Your task to perform on an android device: install app "LinkedIn" Image 0: 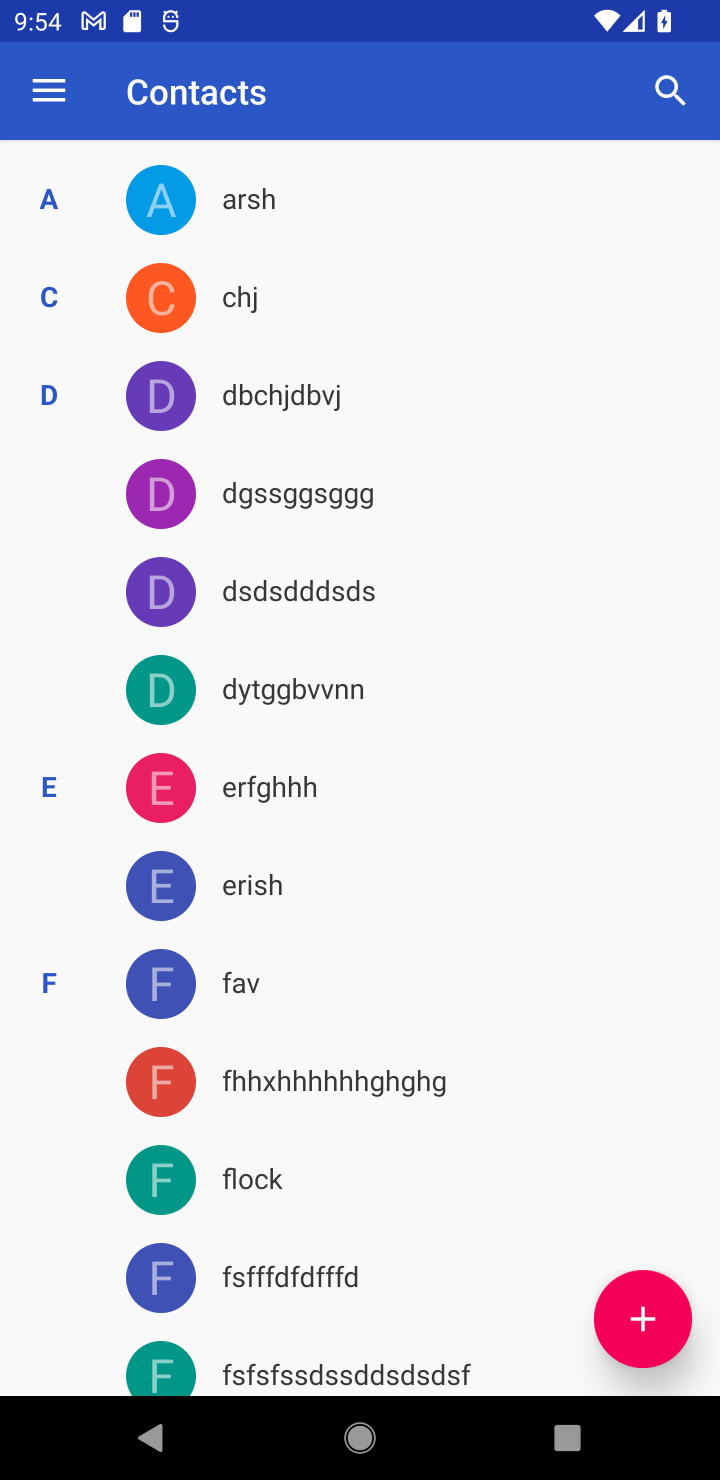
Step 0: press home button
Your task to perform on an android device: install app "LinkedIn" Image 1: 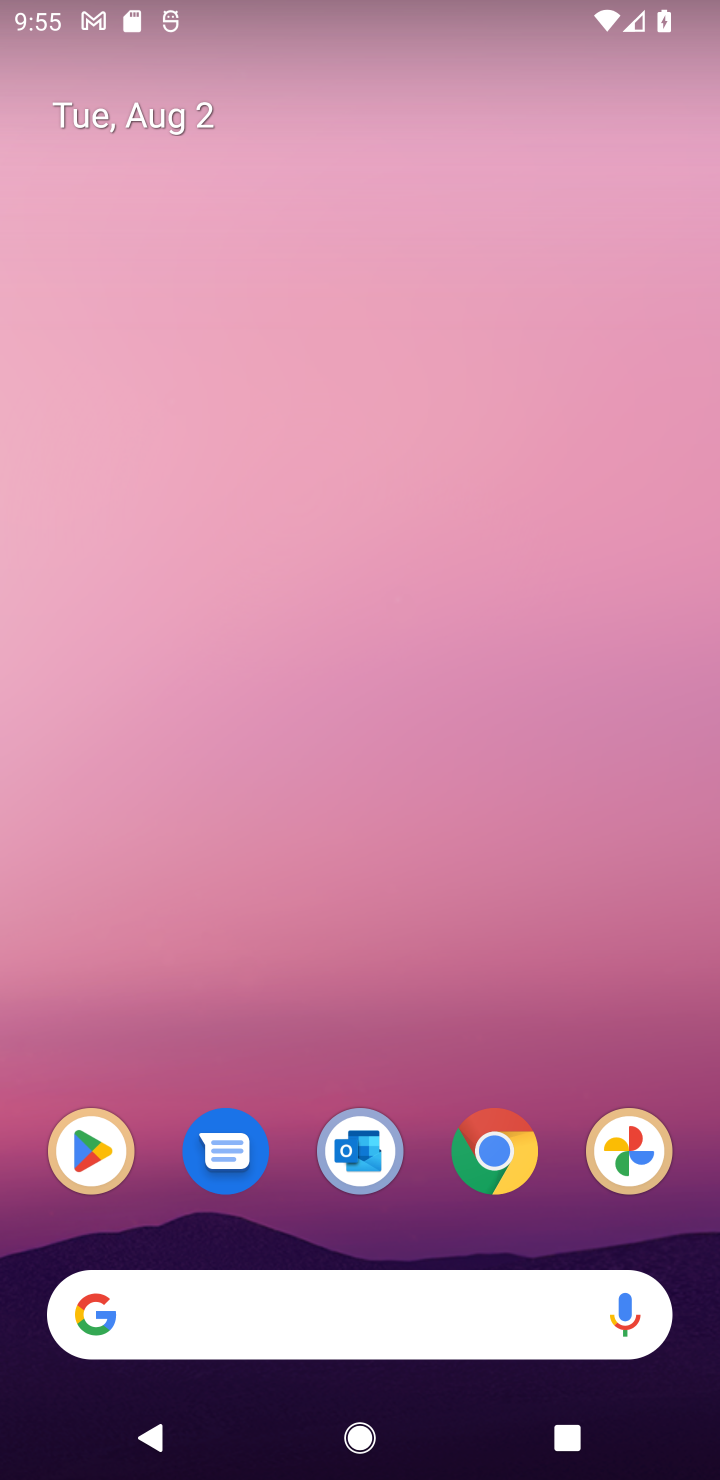
Step 1: drag from (366, 1220) to (353, 36)
Your task to perform on an android device: install app "LinkedIn" Image 2: 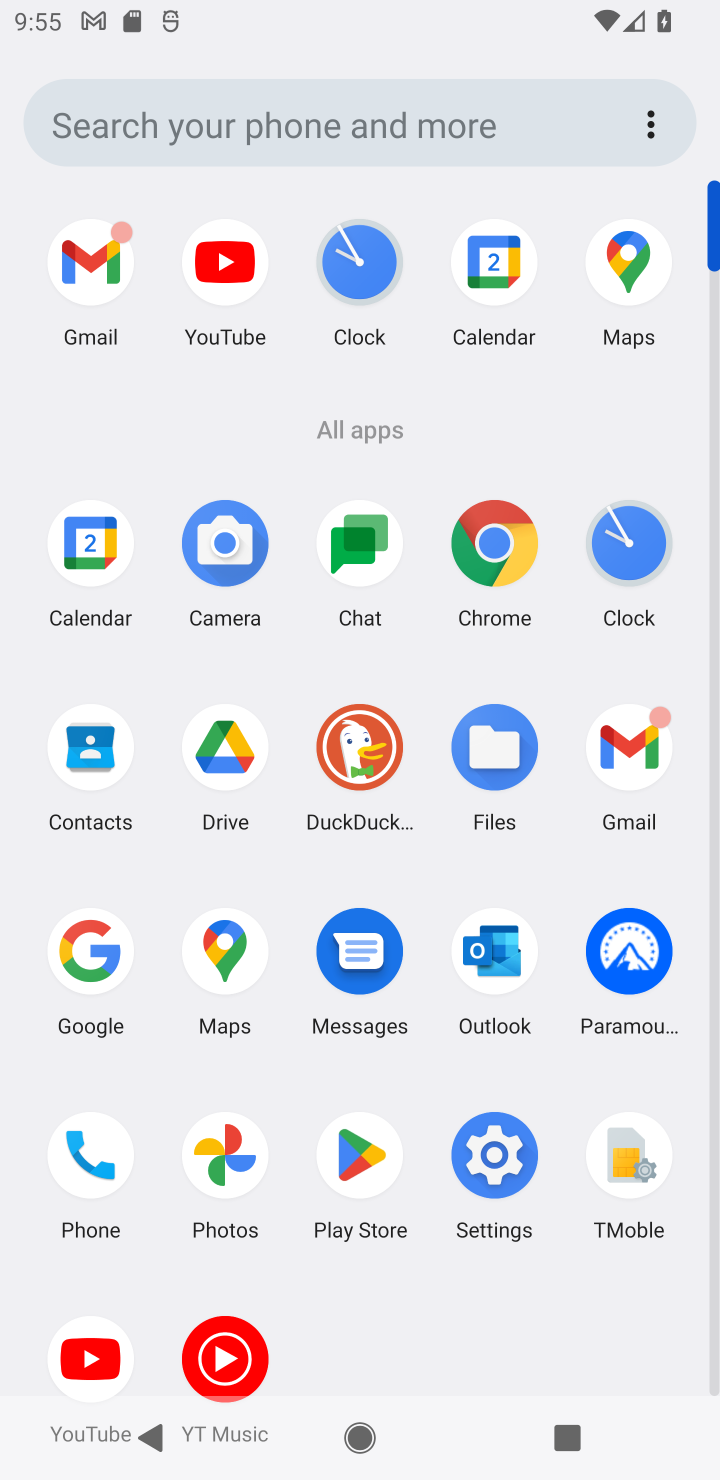
Step 2: click (357, 1166)
Your task to perform on an android device: install app "LinkedIn" Image 3: 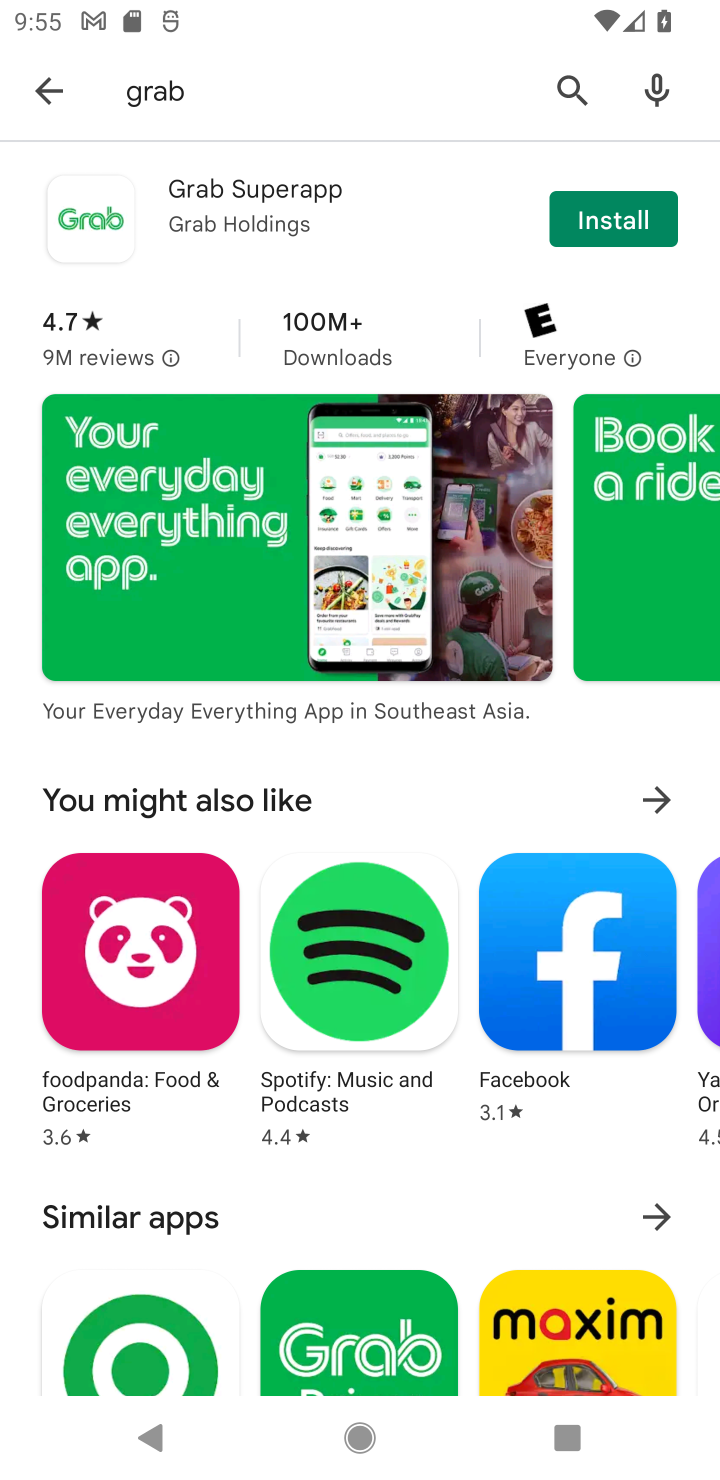
Step 3: click (35, 86)
Your task to perform on an android device: install app "LinkedIn" Image 4: 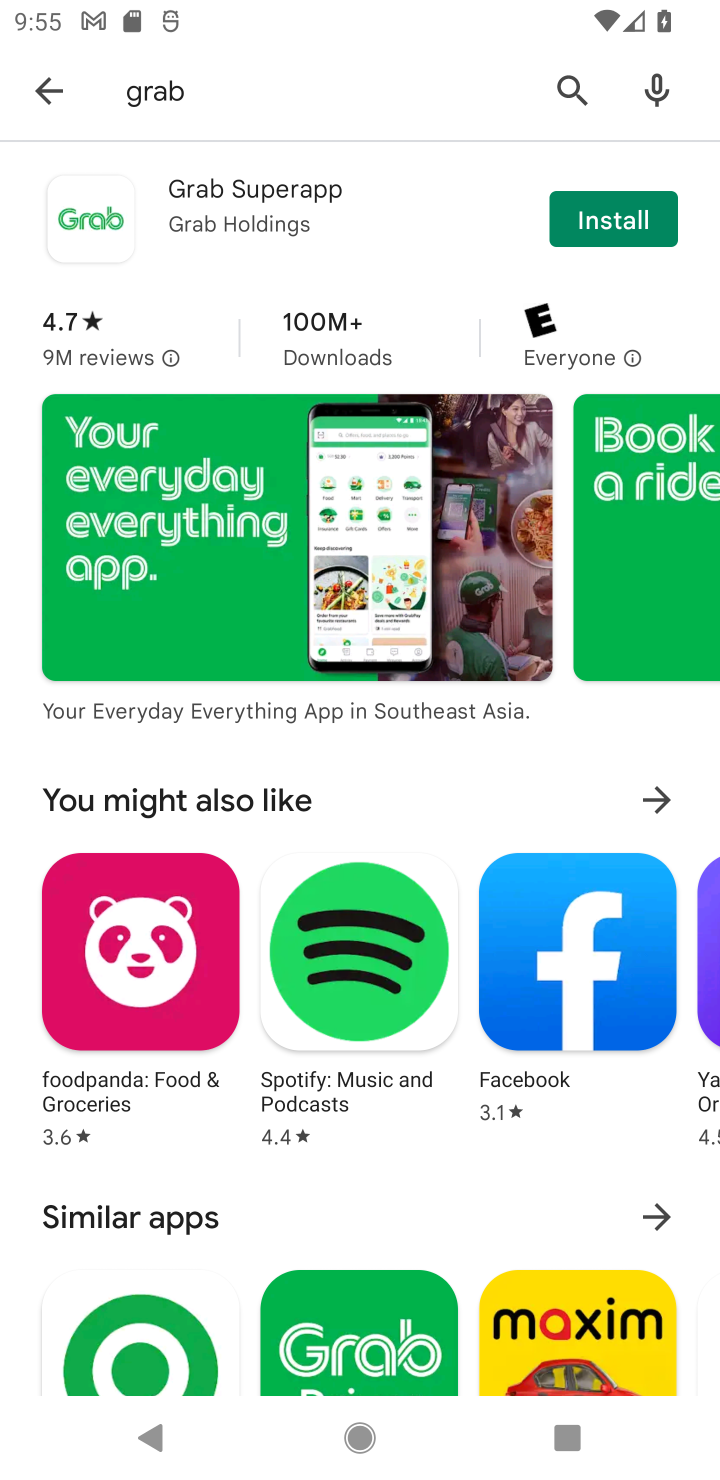
Step 4: click (74, 97)
Your task to perform on an android device: install app "LinkedIn" Image 5: 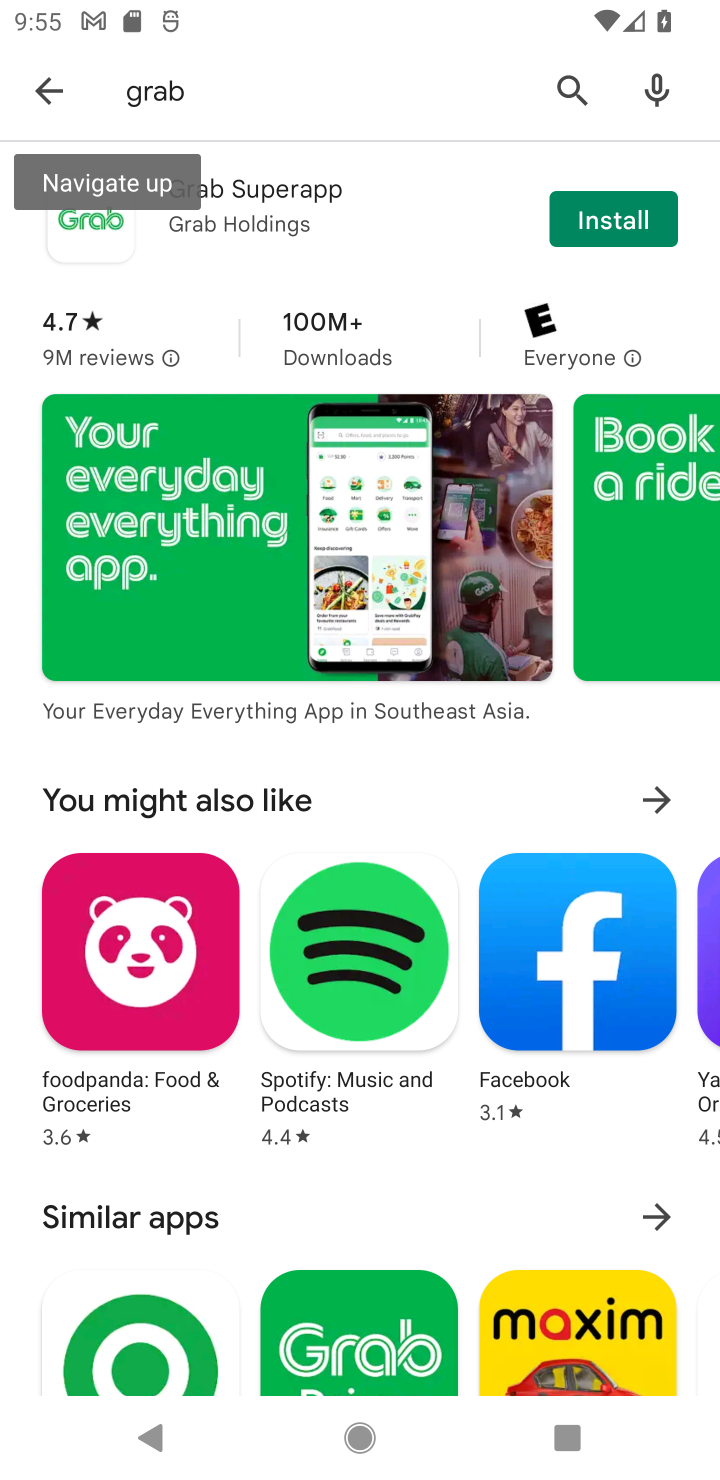
Step 5: click (582, 83)
Your task to perform on an android device: install app "LinkedIn" Image 6: 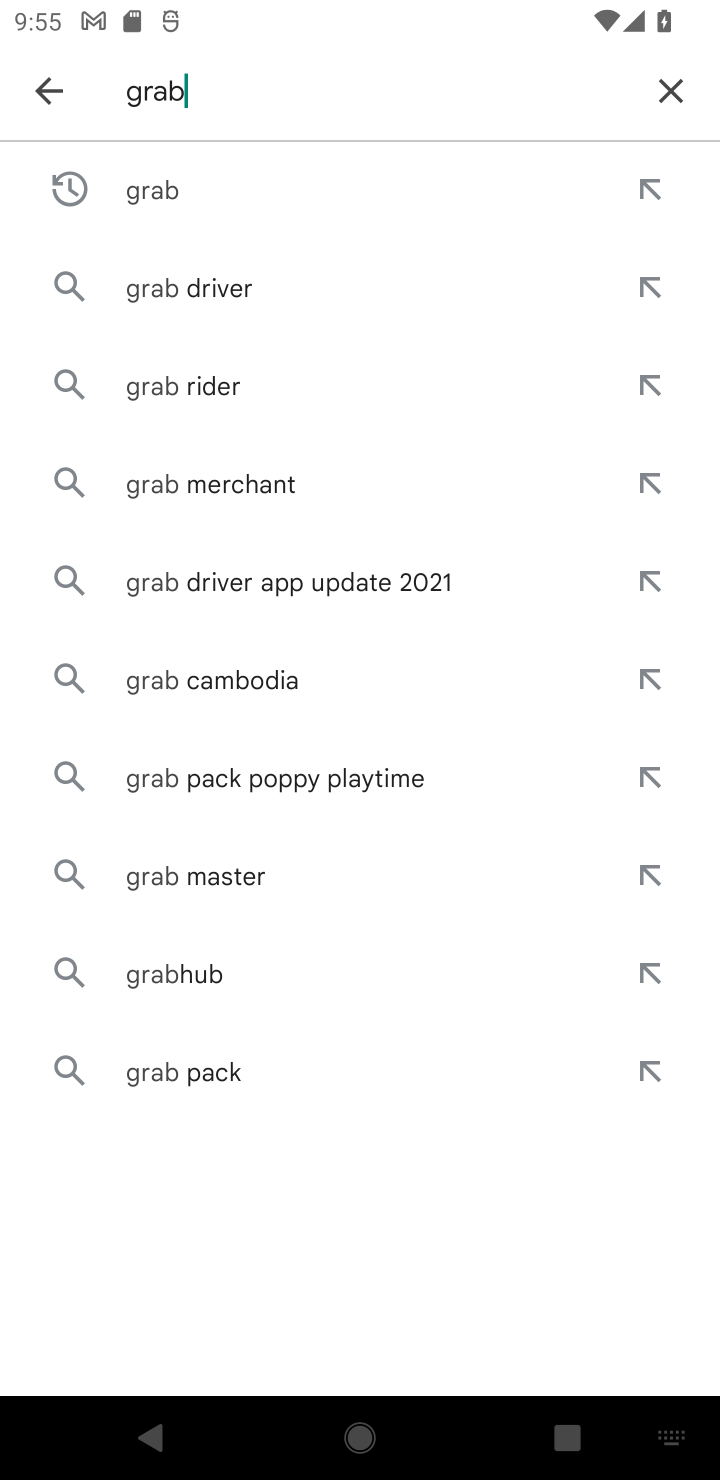
Step 6: click (663, 96)
Your task to perform on an android device: install app "LinkedIn" Image 7: 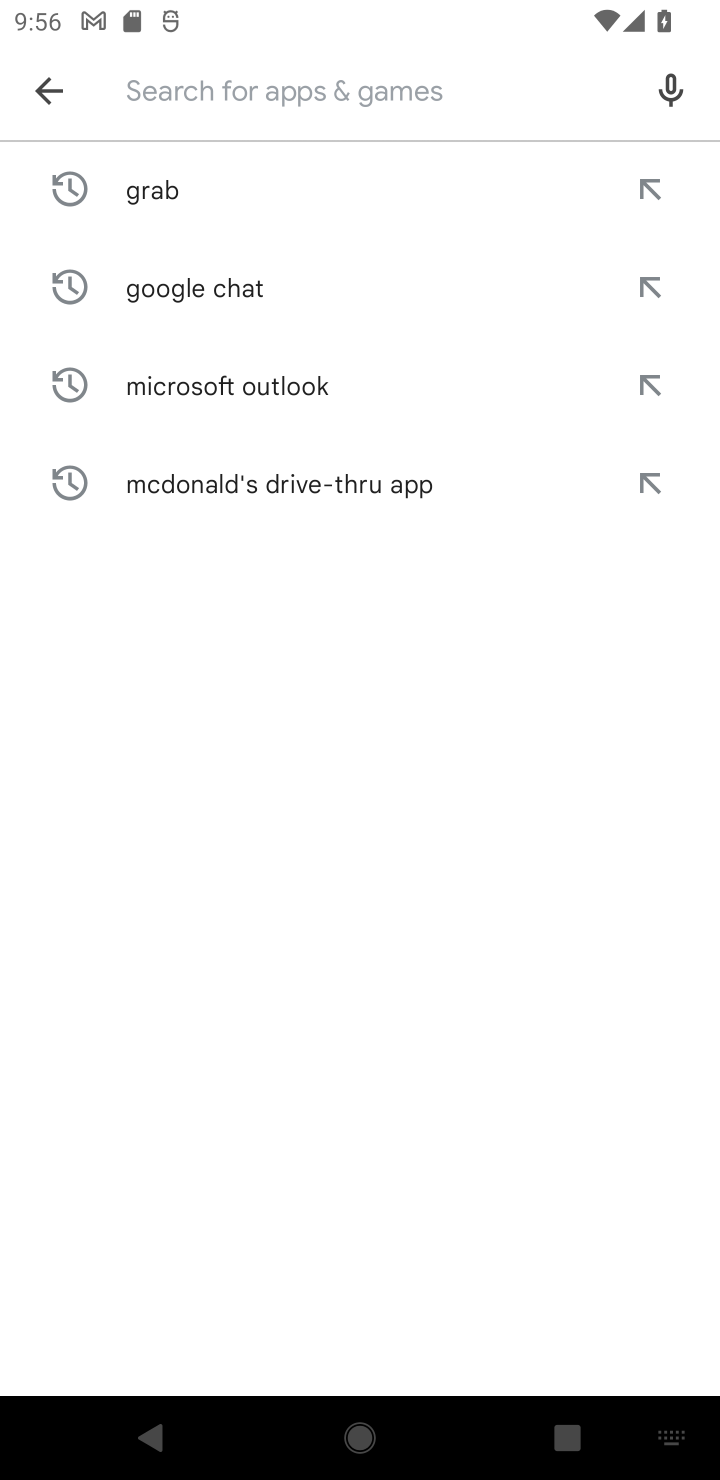
Step 7: type "LinkedIn"
Your task to perform on an android device: install app "LinkedIn" Image 8: 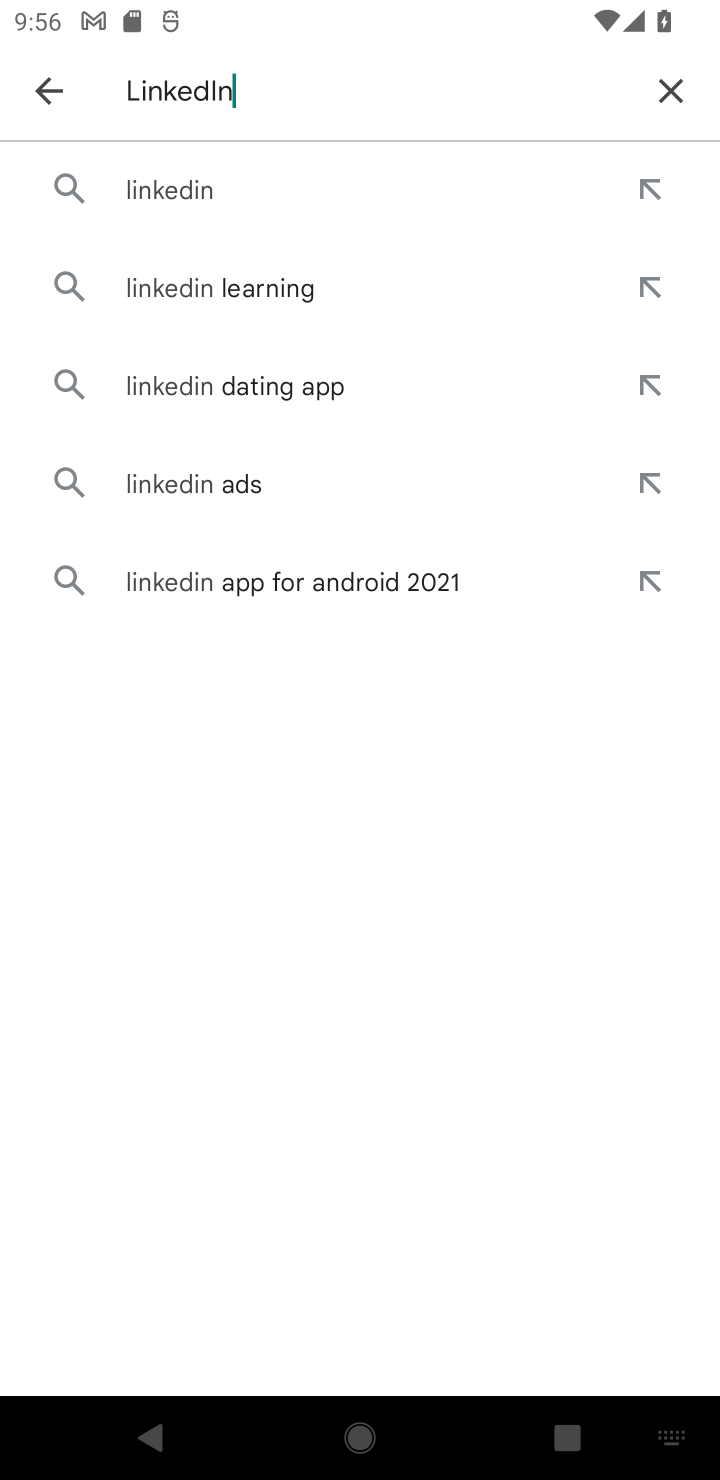
Step 8: click (170, 180)
Your task to perform on an android device: install app "LinkedIn" Image 9: 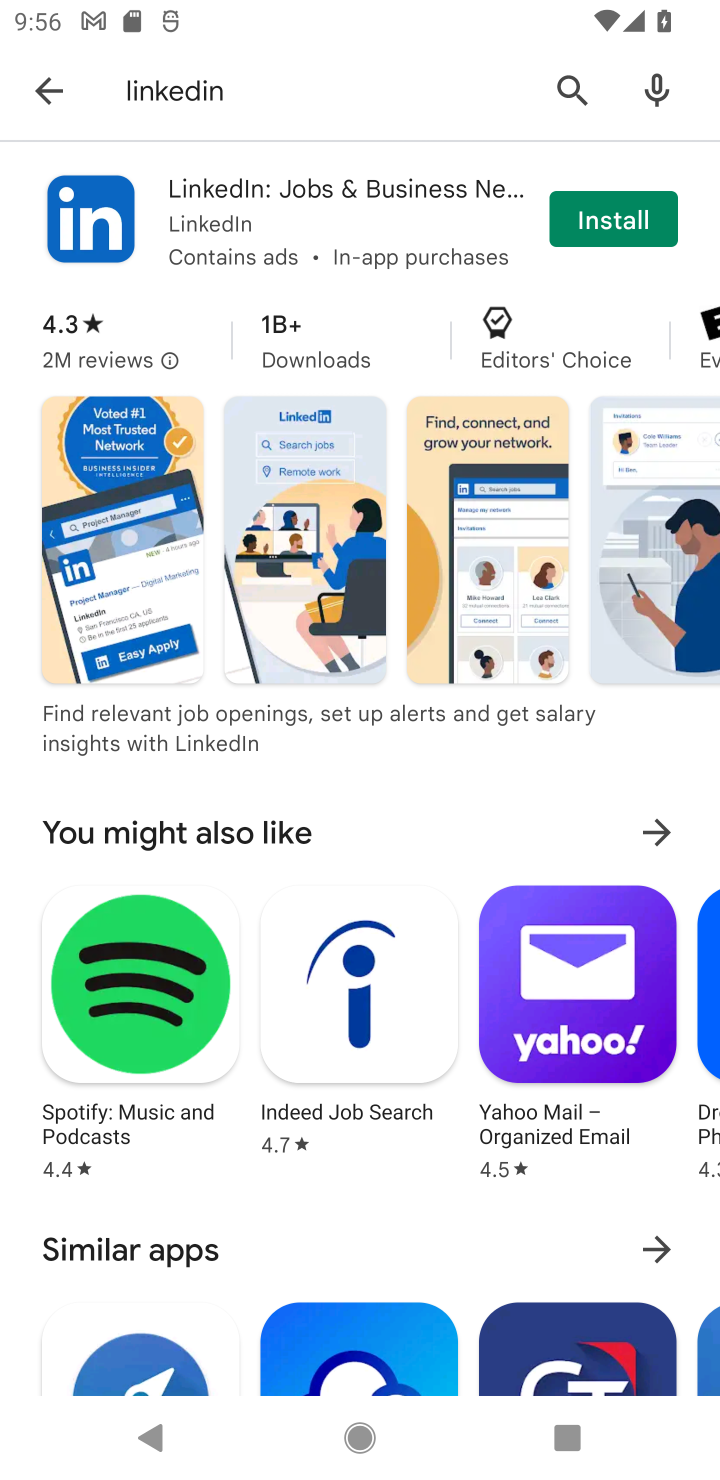
Step 9: click (170, 180)
Your task to perform on an android device: install app "LinkedIn" Image 10: 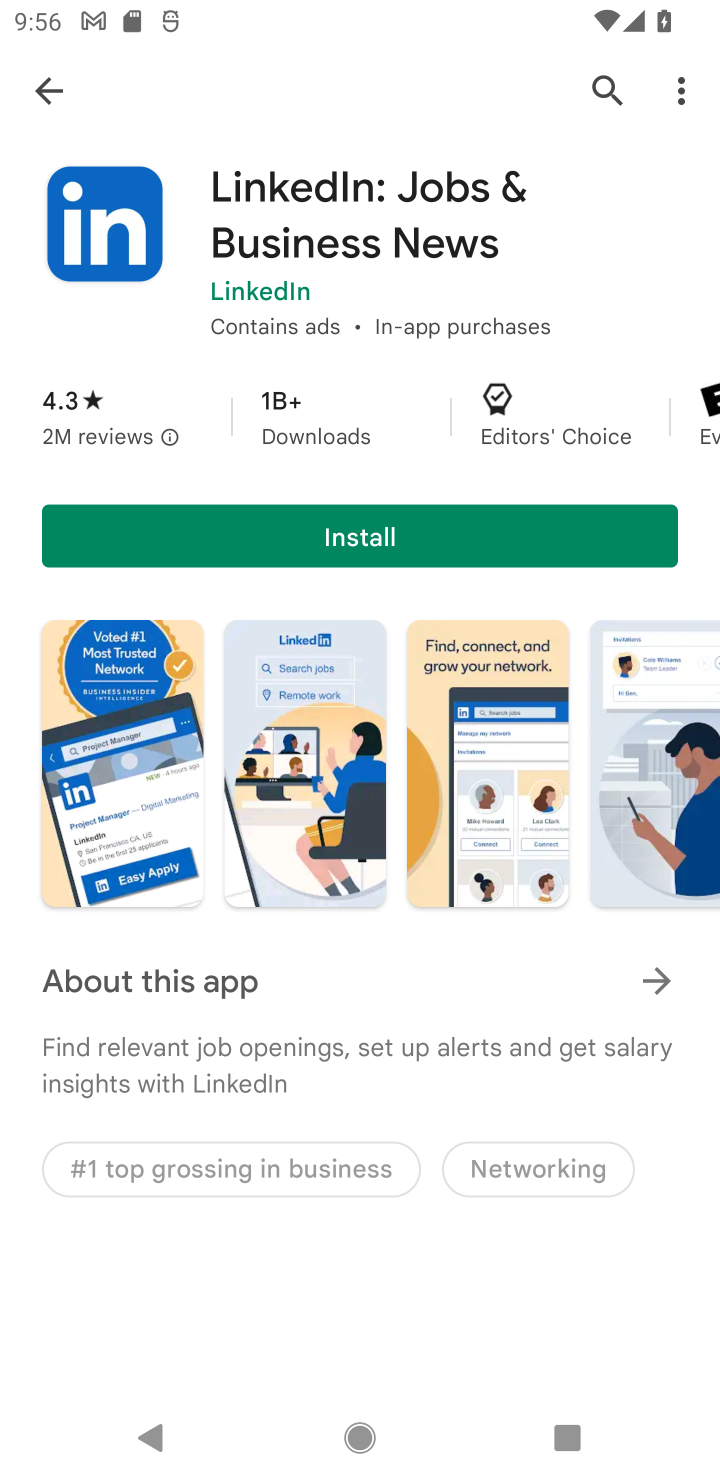
Step 10: click (606, 194)
Your task to perform on an android device: install app "LinkedIn" Image 11: 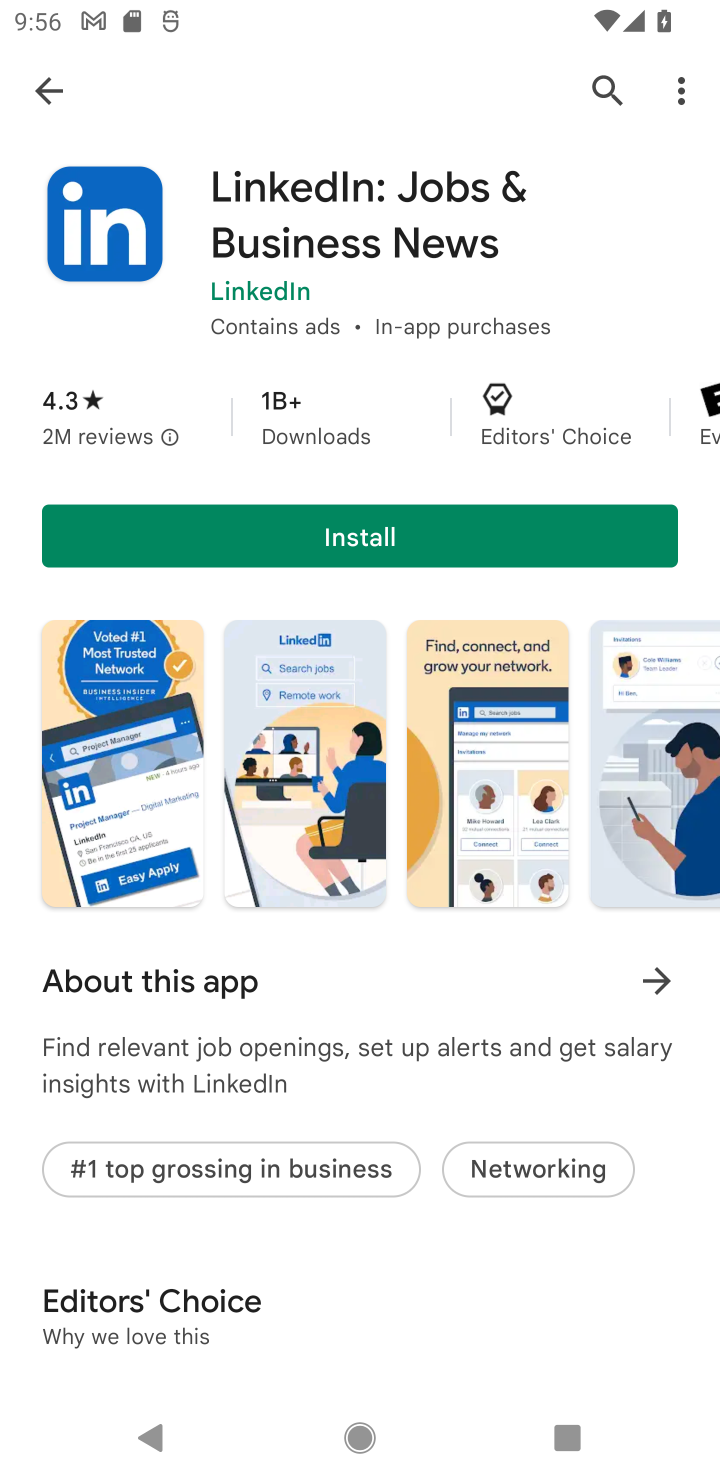
Step 11: click (467, 510)
Your task to perform on an android device: install app "LinkedIn" Image 12: 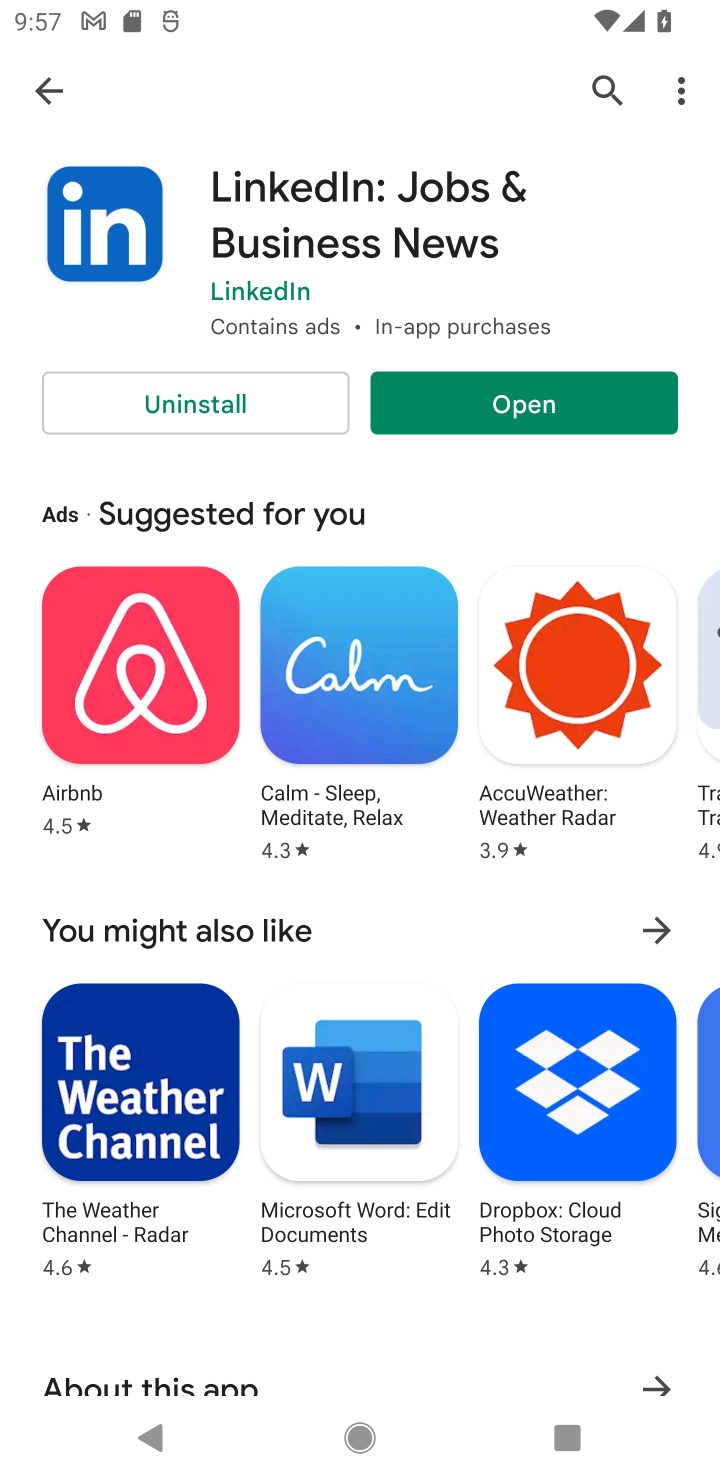
Step 12: task complete